Your task to perform on an android device: toggle translation in the chrome app Image 0: 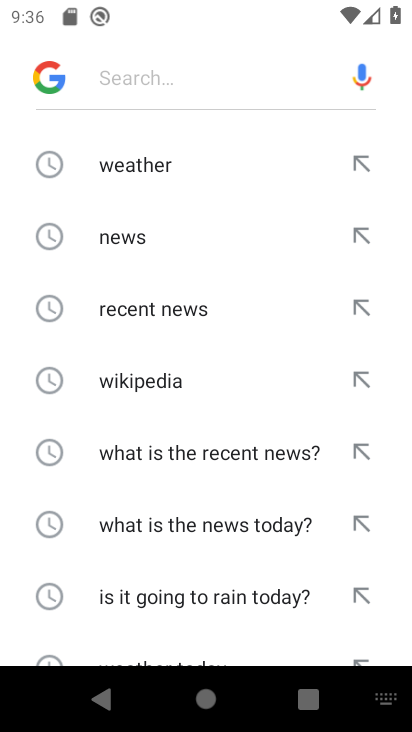
Step 0: press home button
Your task to perform on an android device: toggle translation in the chrome app Image 1: 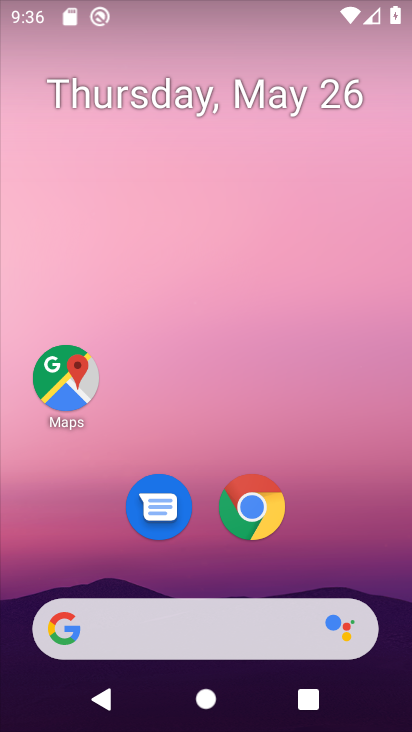
Step 1: drag from (374, 497) to (349, 168)
Your task to perform on an android device: toggle translation in the chrome app Image 2: 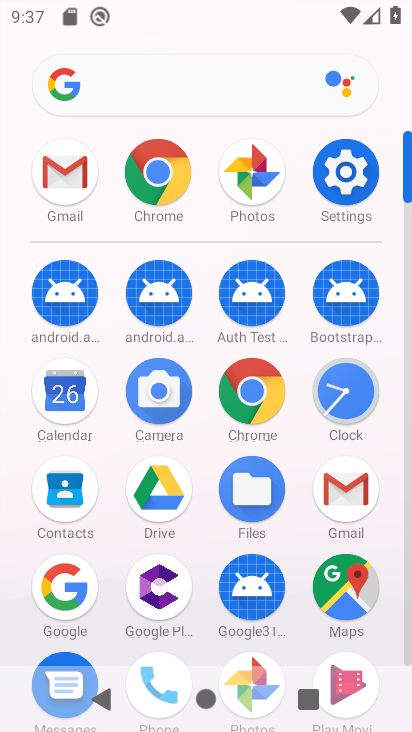
Step 2: click (257, 399)
Your task to perform on an android device: toggle translation in the chrome app Image 3: 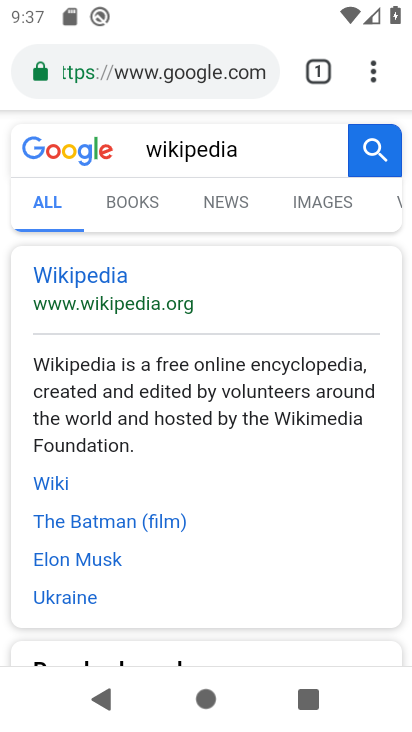
Step 3: click (373, 83)
Your task to perform on an android device: toggle translation in the chrome app Image 4: 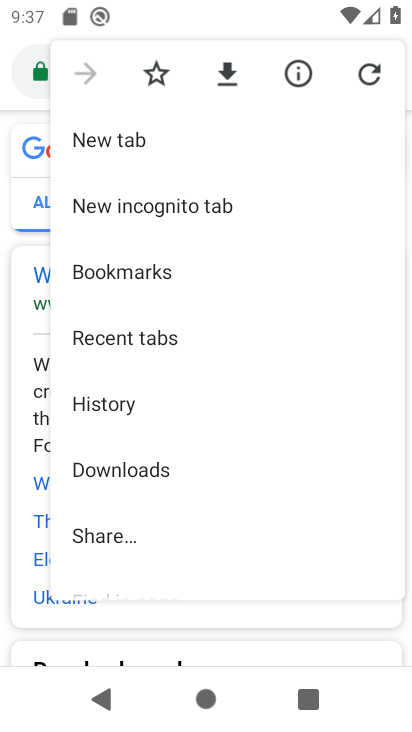
Step 4: drag from (301, 540) to (325, 375)
Your task to perform on an android device: toggle translation in the chrome app Image 5: 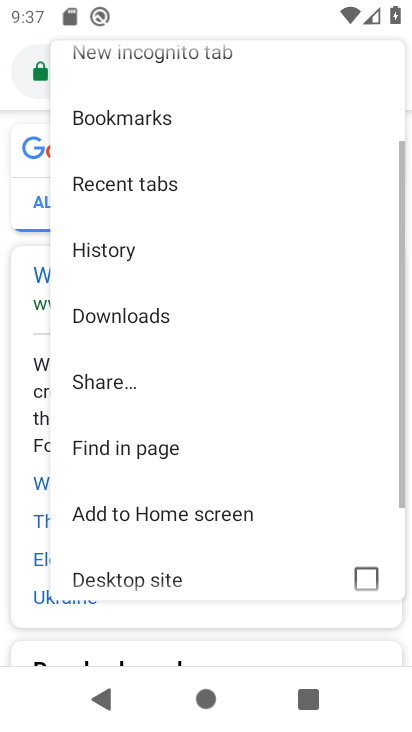
Step 5: drag from (323, 532) to (334, 266)
Your task to perform on an android device: toggle translation in the chrome app Image 6: 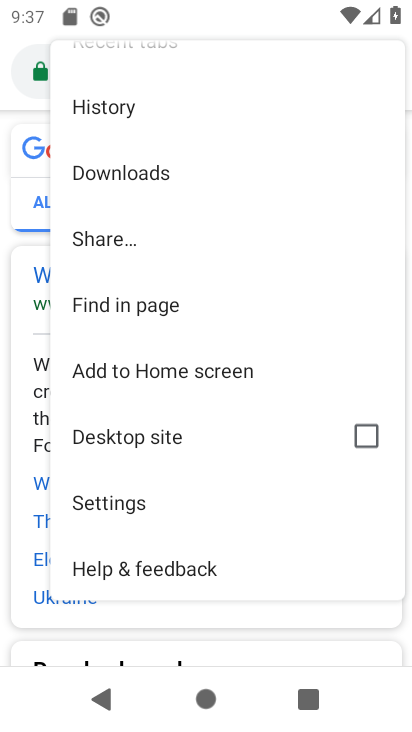
Step 6: click (129, 504)
Your task to perform on an android device: toggle translation in the chrome app Image 7: 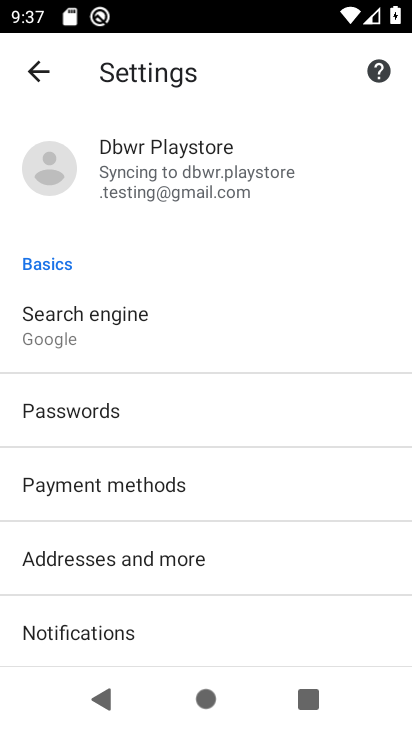
Step 7: drag from (300, 479) to (307, 356)
Your task to perform on an android device: toggle translation in the chrome app Image 8: 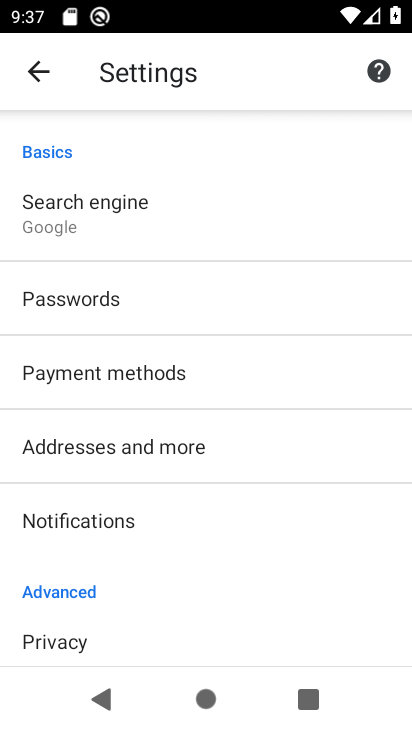
Step 8: drag from (306, 431) to (308, 306)
Your task to perform on an android device: toggle translation in the chrome app Image 9: 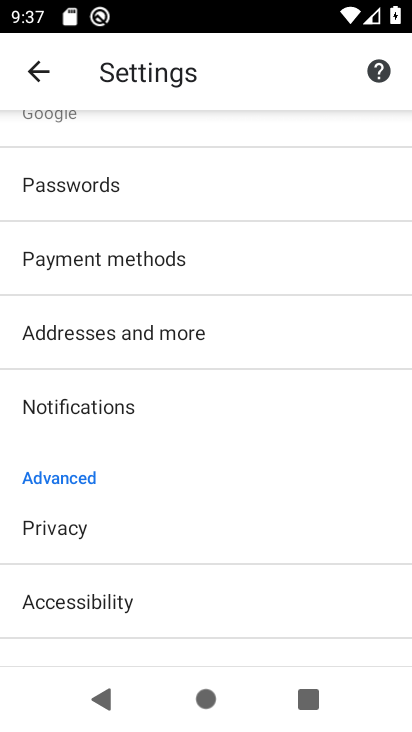
Step 9: drag from (311, 511) to (323, 356)
Your task to perform on an android device: toggle translation in the chrome app Image 10: 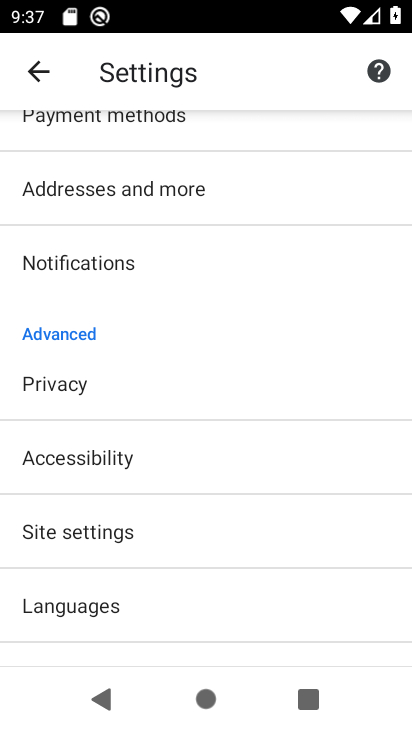
Step 10: drag from (340, 568) to (355, 427)
Your task to perform on an android device: toggle translation in the chrome app Image 11: 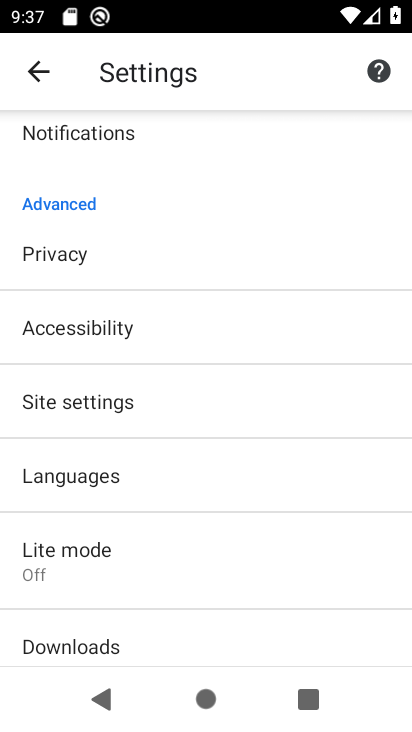
Step 11: drag from (319, 601) to (314, 451)
Your task to perform on an android device: toggle translation in the chrome app Image 12: 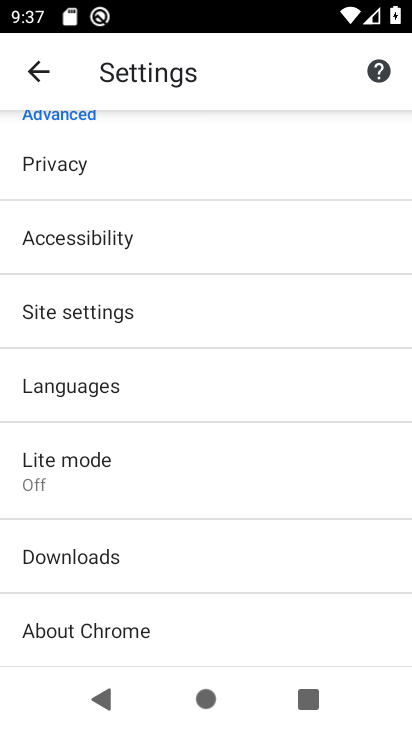
Step 12: click (289, 405)
Your task to perform on an android device: toggle translation in the chrome app Image 13: 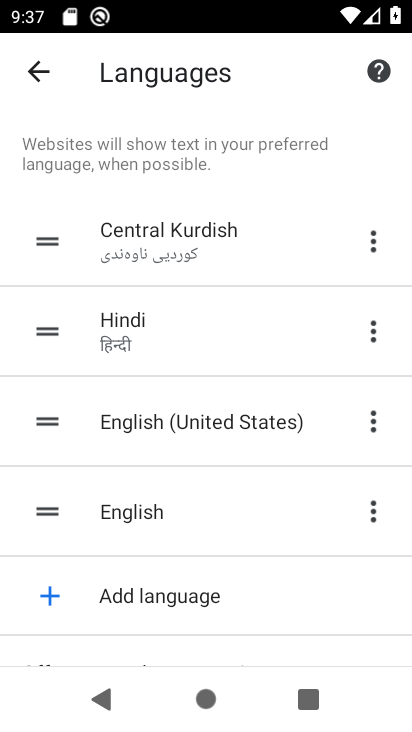
Step 13: drag from (272, 567) to (281, 445)
Your task to perform on an android device: toggle translation in the chrome app Image 14: 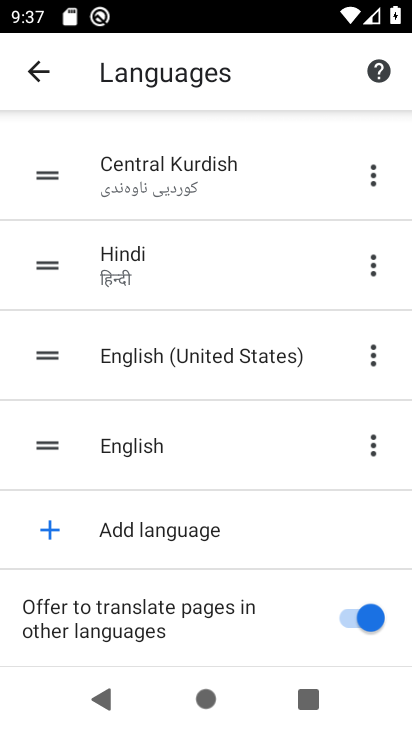
Step 14: click (351, 620)
Your task to perform on an android device: toggle translation in the chrome app Image 15: 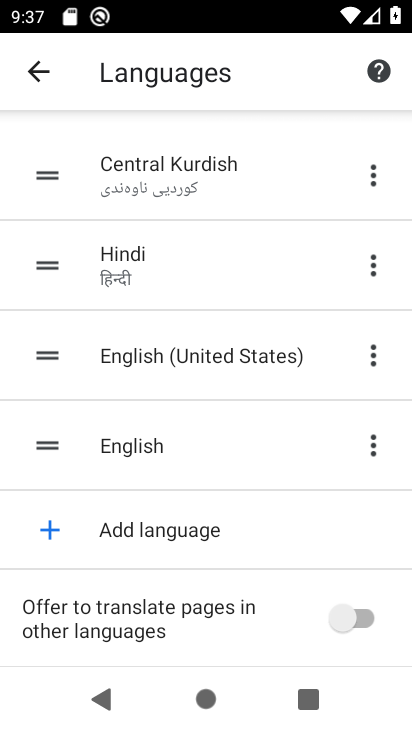
Step 15: task complete